Your task to perform on an android device: toggle airplane mode Image 0: 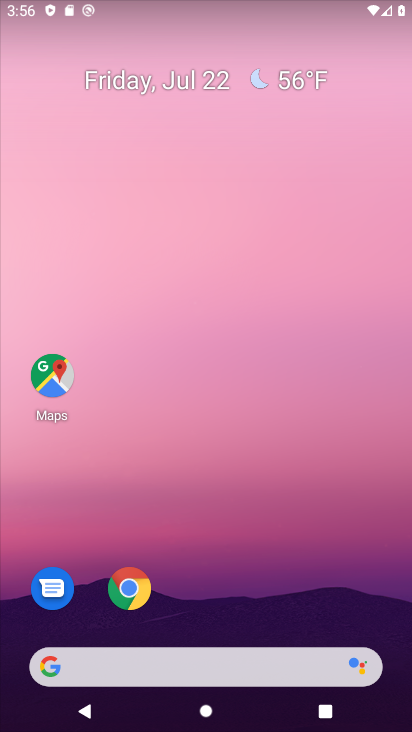
Step 0: drag from (265, 591) to (230, 152)
Your task to perform on an android device: toggle airplane mode Image 1: 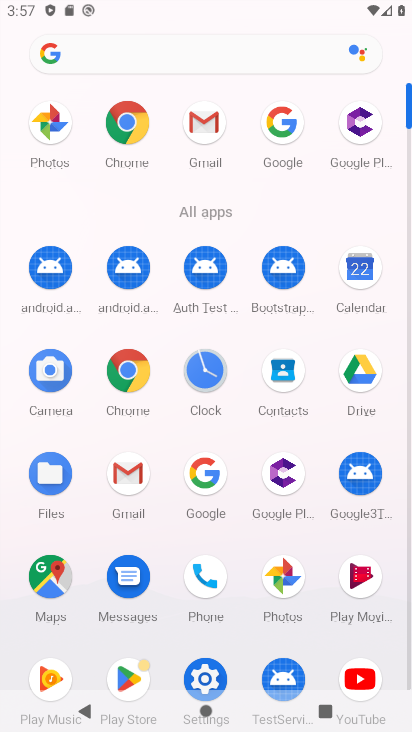
Step 1: click (214, 667)
Your task to perform on an android device: toggle airplane mode Image 2: 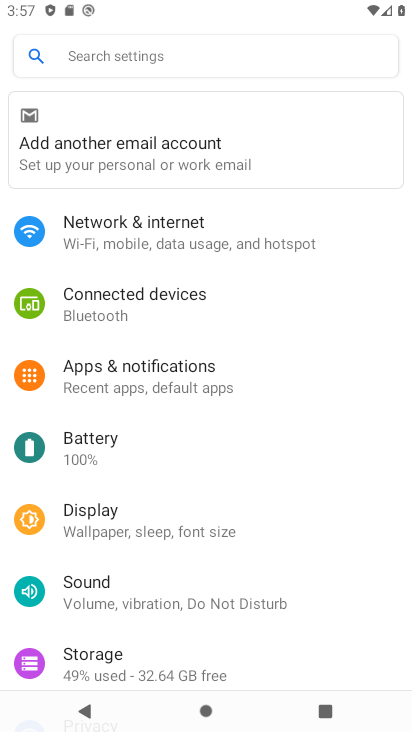
Step 2: click (189, 252)
Your task to perform on an android device: toggle airplane mode Image 3: 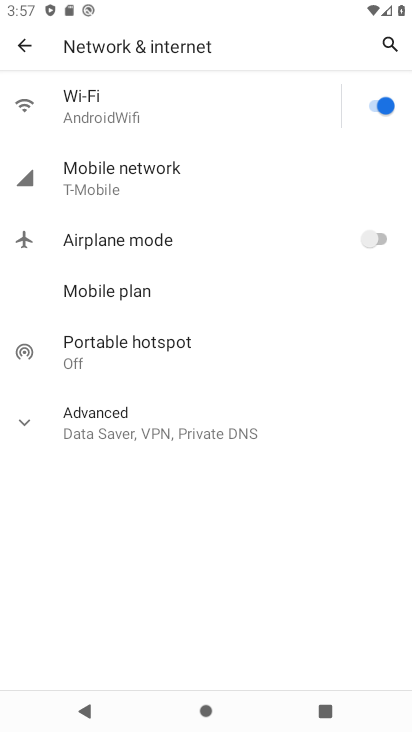
Step 3: task complete